Your task to perform on an android device: open wifi settings Image 0: 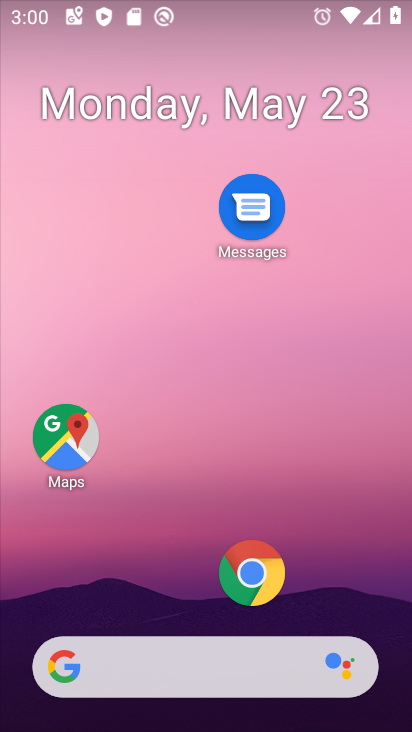
Step 0: drag from (221, 666) to (255, 7)
Your task to perform on an android device: open wifi settings Image 1: 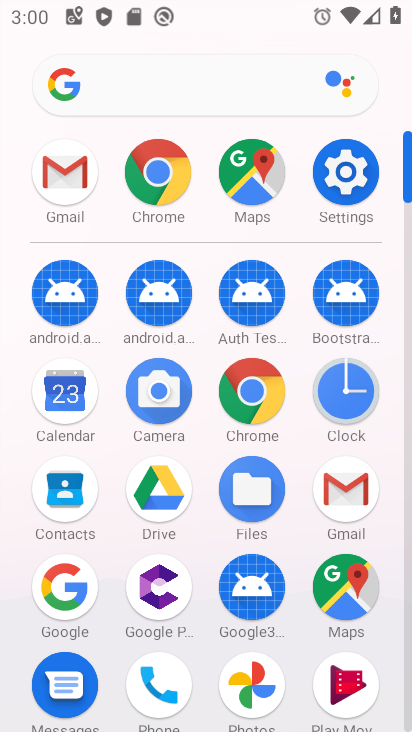
Step 1: click (336, 167)
Your task to perform on an android device: open wifi settings Image 2: 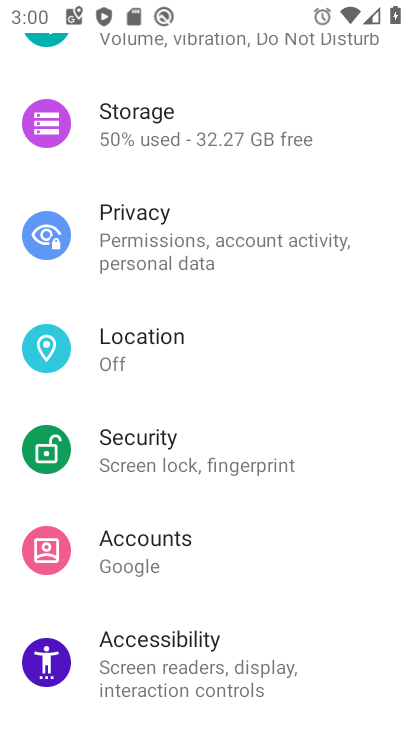
Step 2: drag from (219, 201) to (404, 728)
Your task to perform on an android device: open wifi settings Image 3: 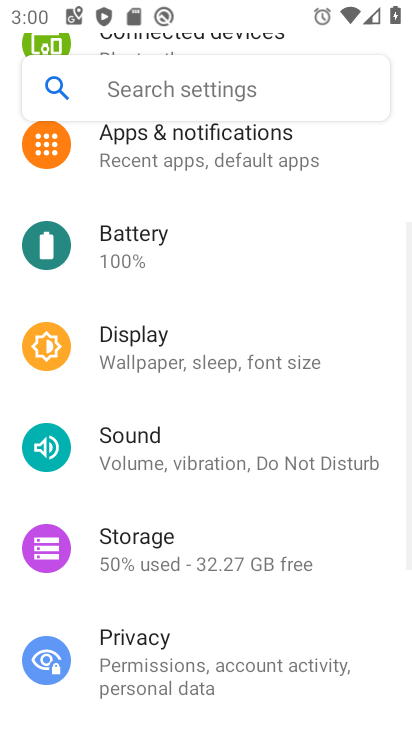
Step 3: drag from (238, 259) to (264, 670)
Your task to perform on an android device: open wifi settings Image 4: 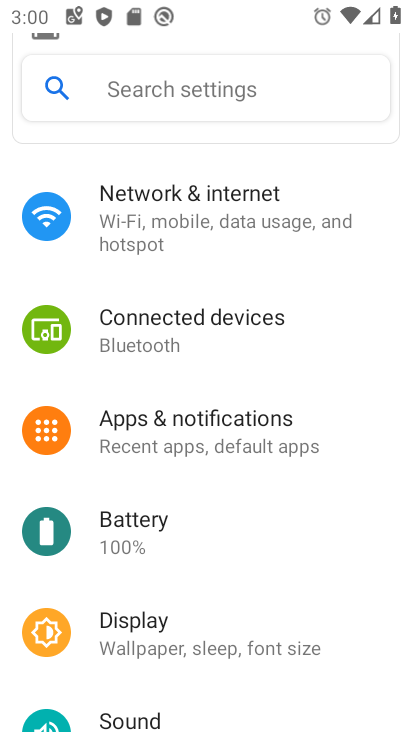
Step 4: click (190, 230)
Your task to perform on an android device: open wifi settings Image 5: 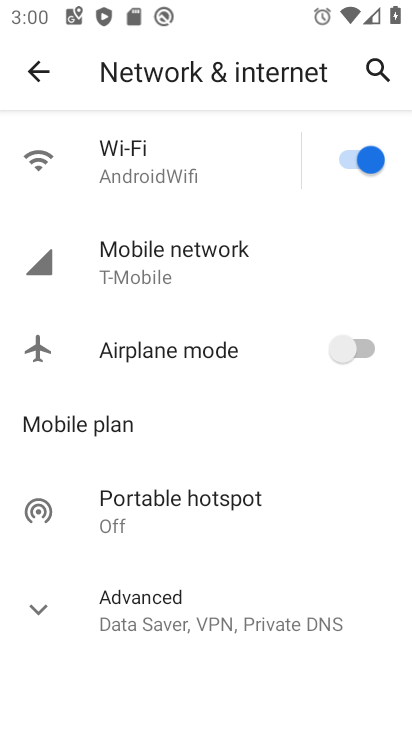
Step 5: click (186, 160)
Your task to perform on an android device: open wifi settings Image 6: 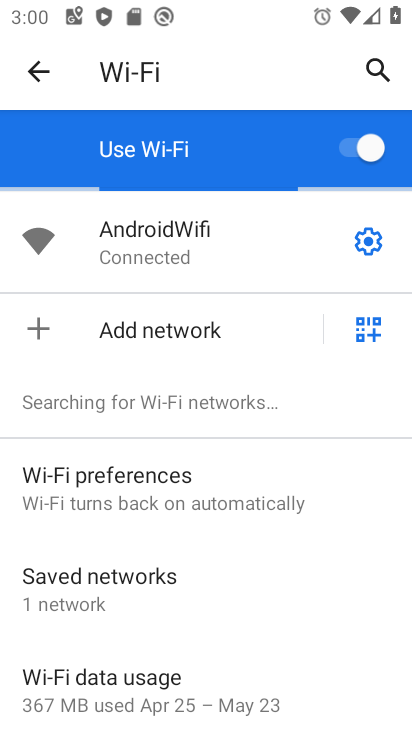
Step 6: task complete